Your task to perform on an android device: turn off notifications in google photos Image 0: 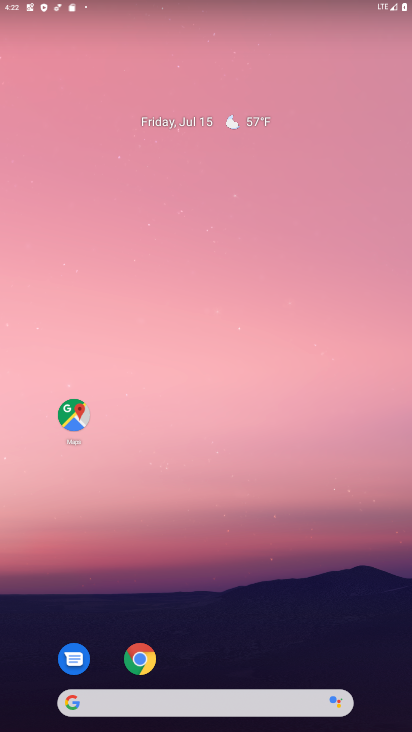
Step 0: drag from (246, 624) to (107, 83)
Your task to perform on an android device: turn off notifications in google photos Image 1: 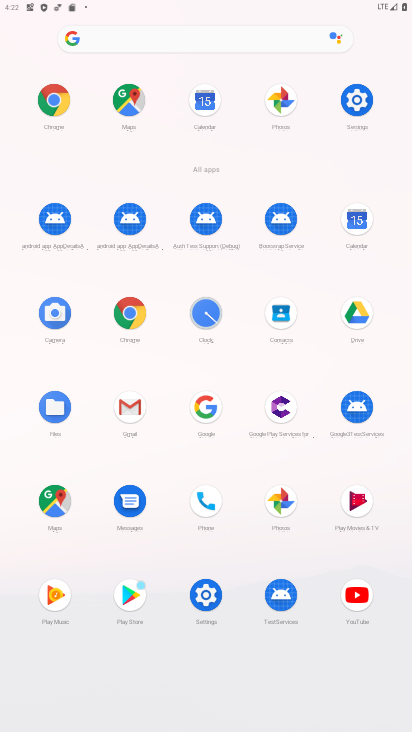
Step 1: click (296, 109)
Your task to perform on an android device: turn off notifications in google photos Image 2: 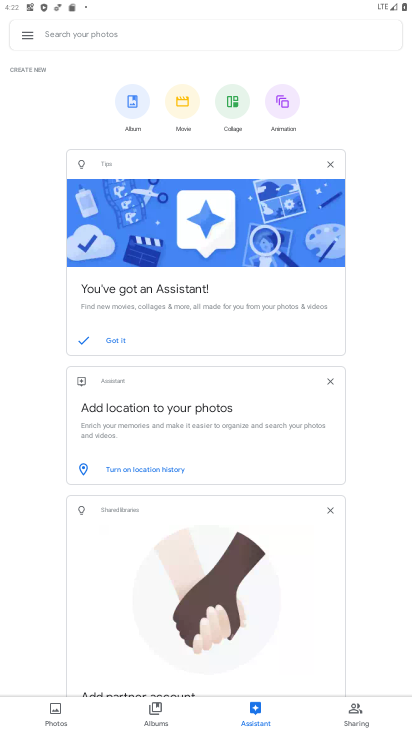
Step 2: click (30, 44)
Your task to perform on an android device: turn off notifications in google photos Image 3: 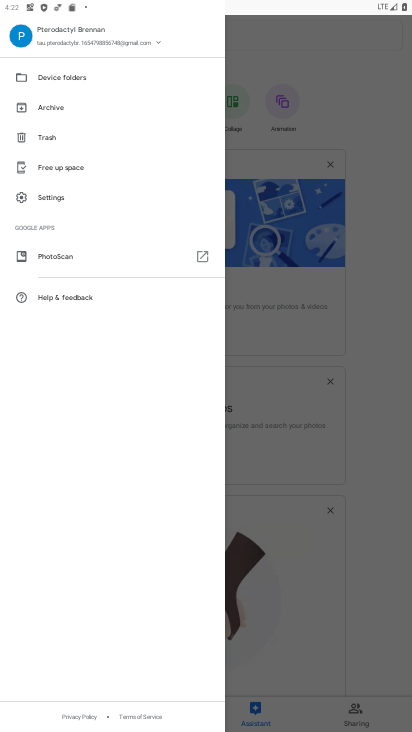
Step 3: click (80, 198)
Your task to perform on an android device: turn off notifications in google photos Image 4: 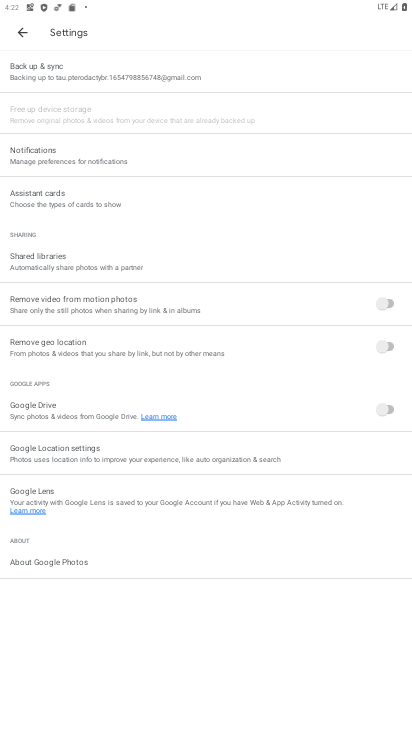
Step 4: click (92, 167)
Your task to perform on an android device: turn off notifications in google photos Image 5: 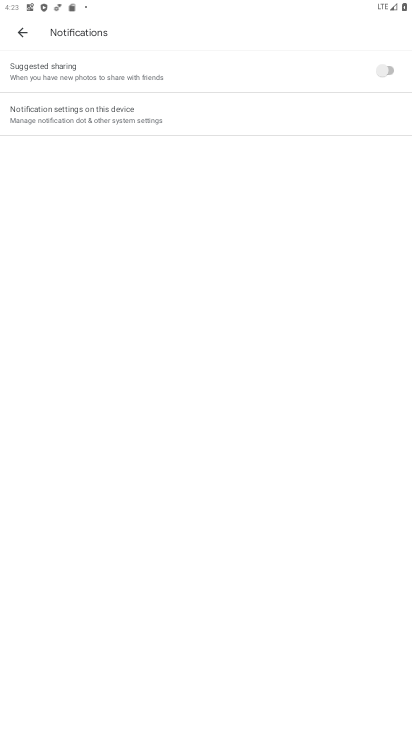
Step 5: click (132, 104)
Your task to perform on an android device: turn off notifications in google photos Image 6: 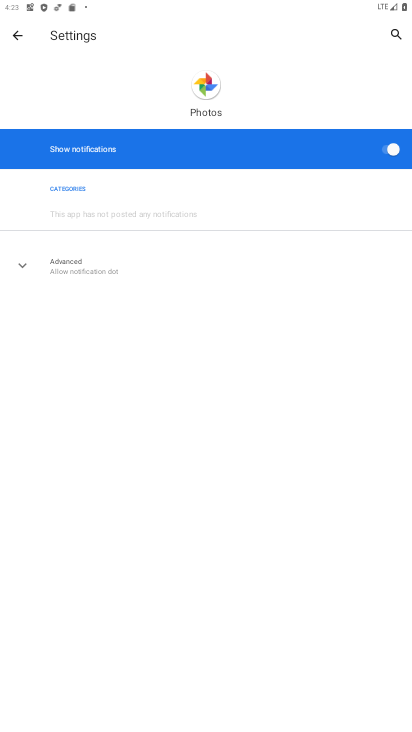
Step 6: click (392, 160)
Your task to perform on an android device: turn off notifications in google photos Image 7: 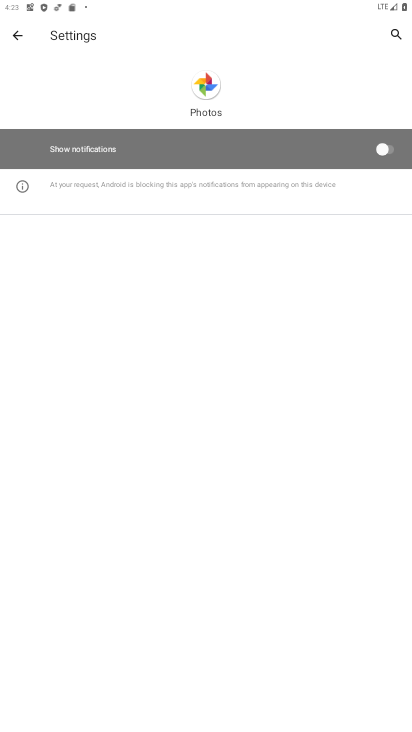
Step 7: task complete